Your task to perform on an android device: Add "razer blade" to the cart on bestbuy.com Image 0: 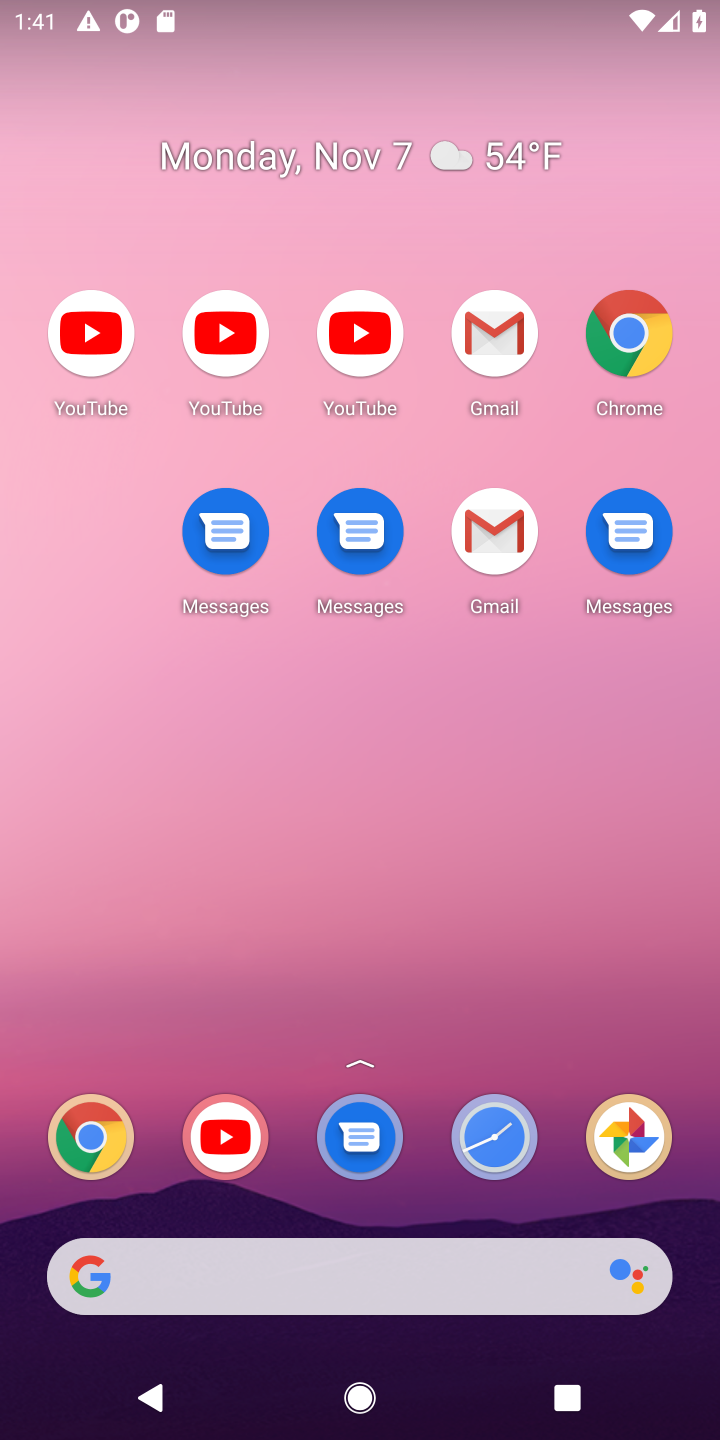
Step 0: drag from (419, 1213) to (379, 125)
Your task to perform on an android device: Add "razer blade" to the cart on bestbuy.com Image 1: 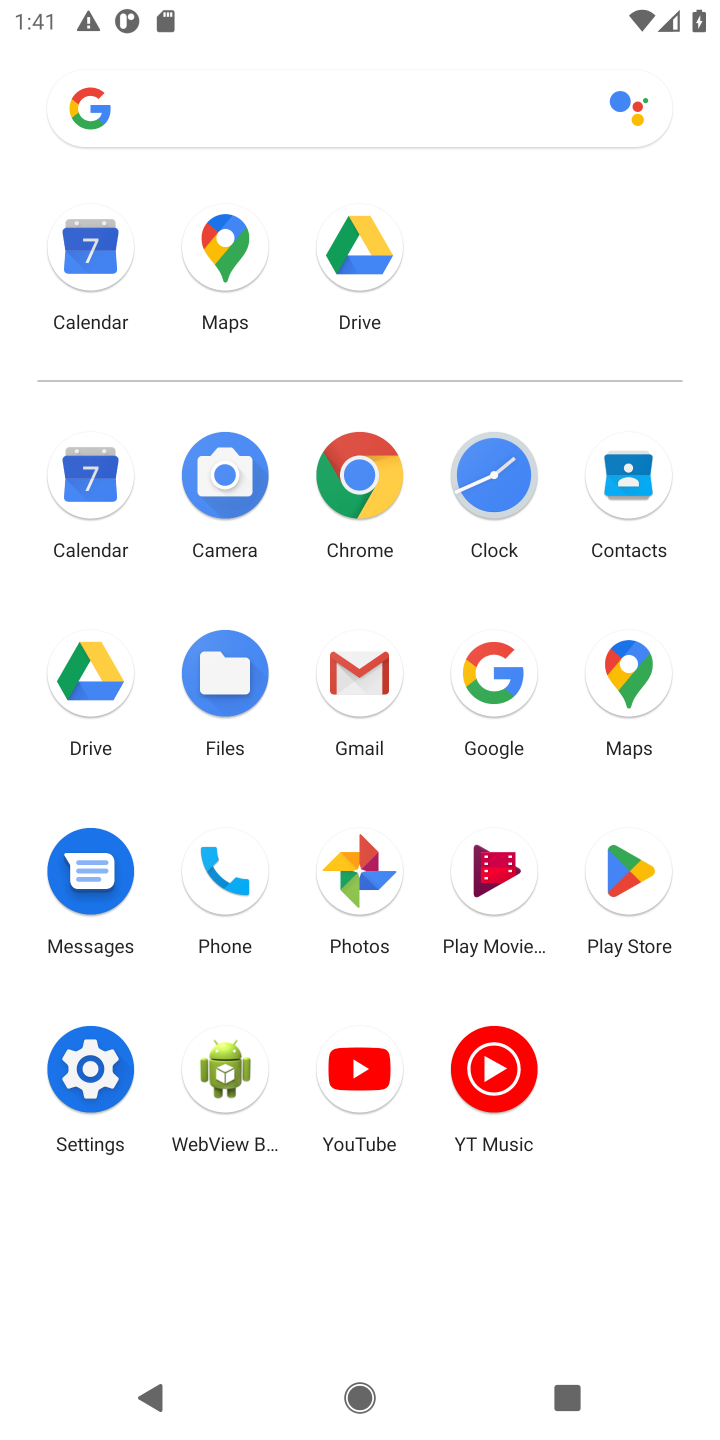
Step 1: click (365, 468)
Your task to perform on an android device: Add "razer blade" to the cart on bestbuy.com Image 2: 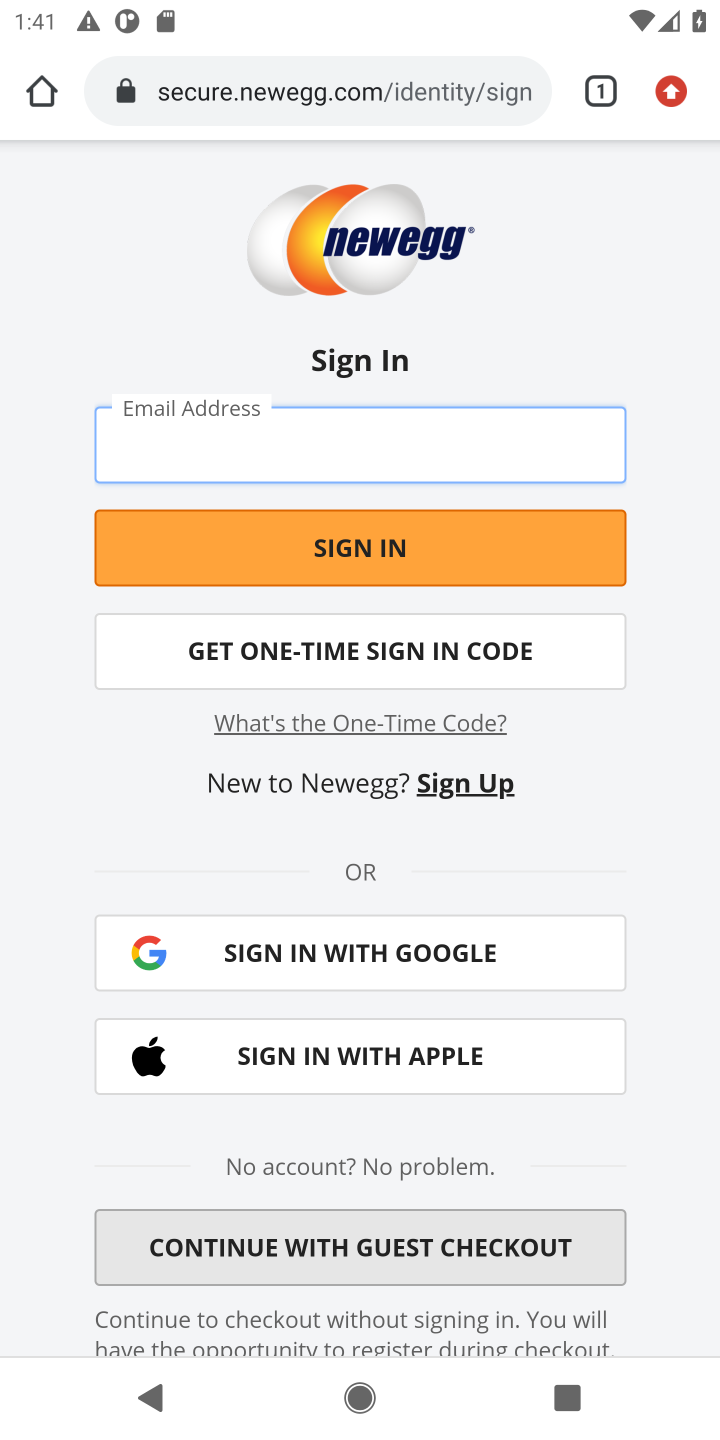
Step 2: click (387, 104)
Your task to perform on an android device: Add "razer blade" to the cart on bestbuy.com Image 3: 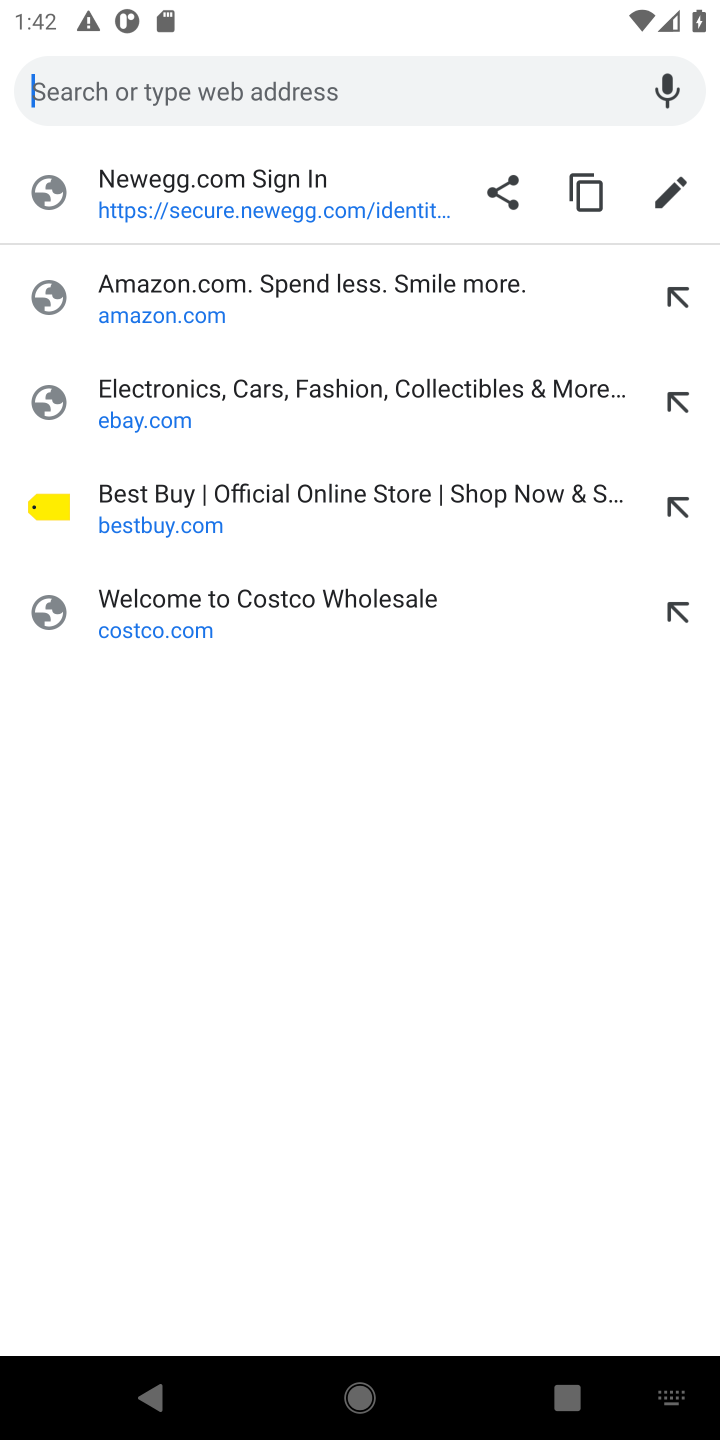
Step 3: type "bestbuy.com"
Your task to perform on an android device: Add "razer blade" to the cart on bestbuy.com Image 4: 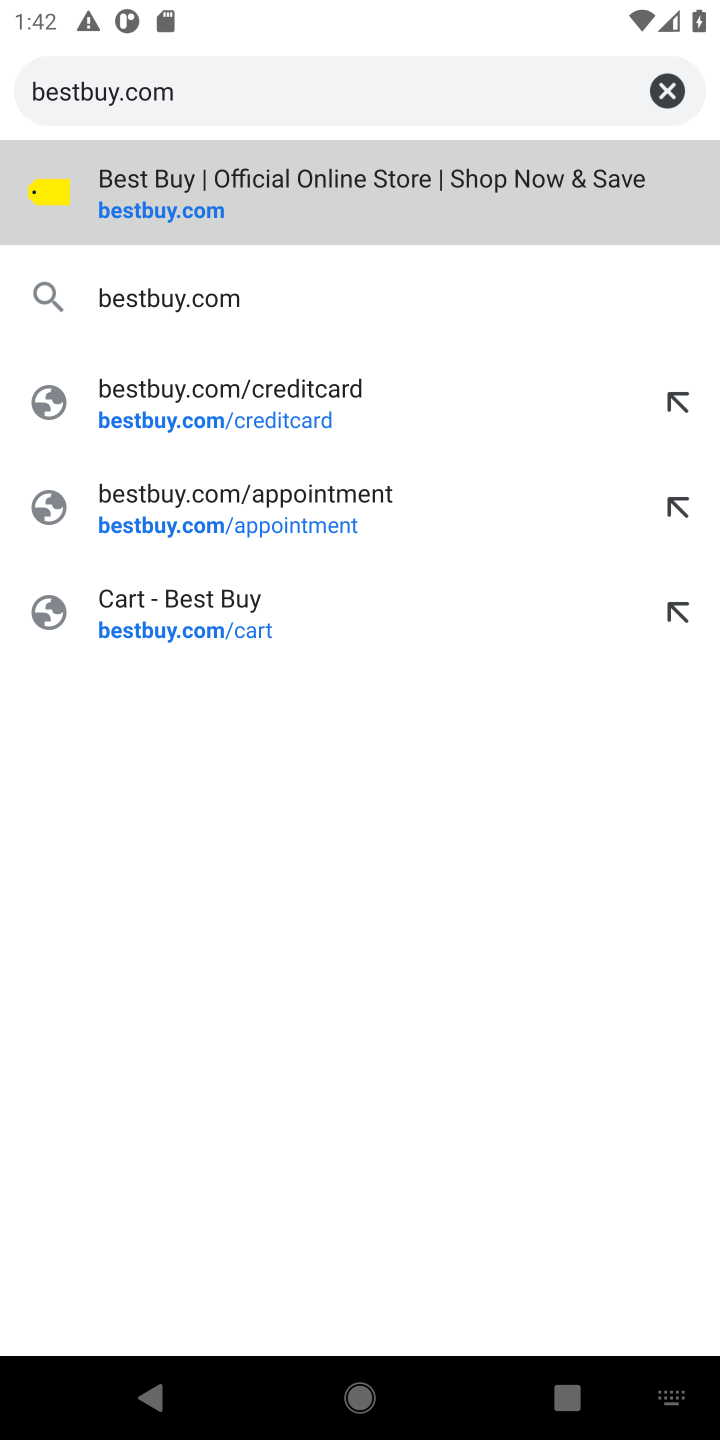
Step 4: press enter
Your task to perform on an android device: Add "razer blade" to the cart on bestbuy.com Image 5: 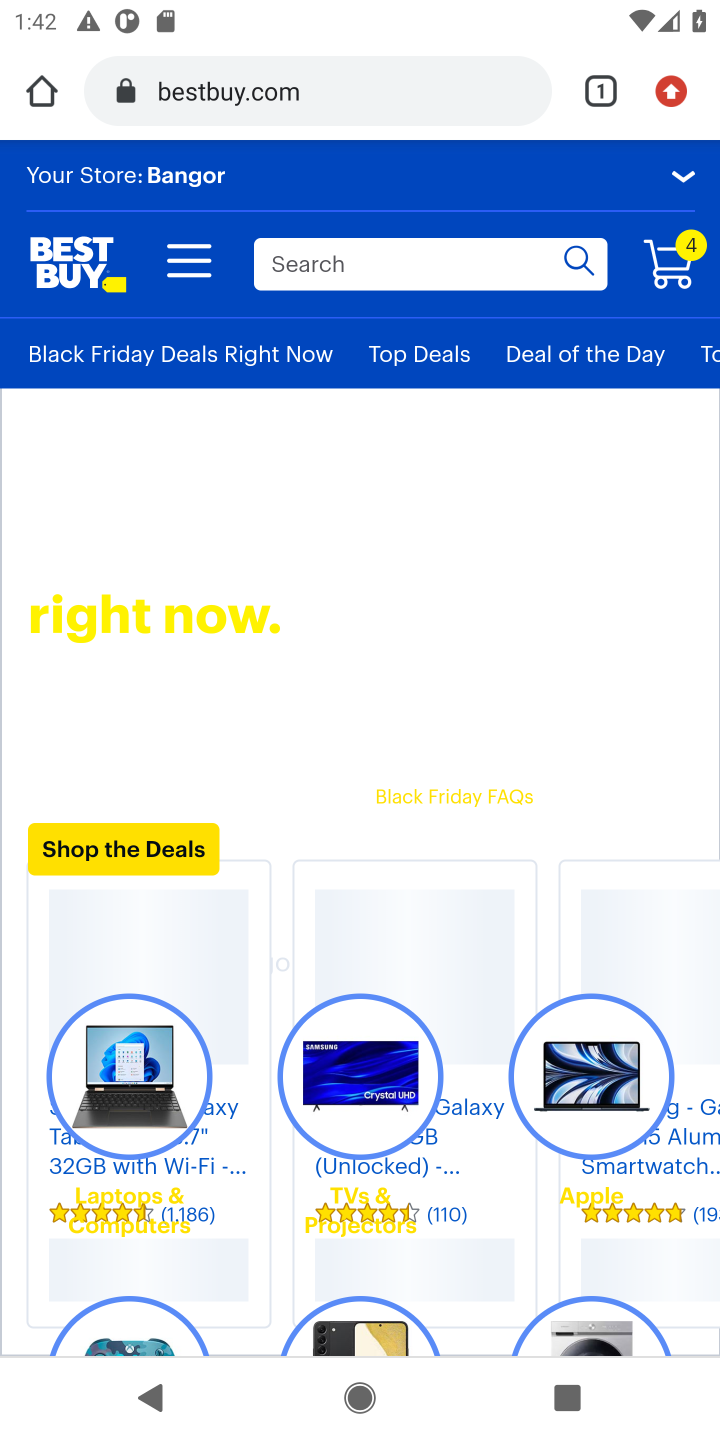
Step 5: click (504, 271)
Your task to perform on an android device: Add "razer blade" to the cart on bestbuy.com Image 6: 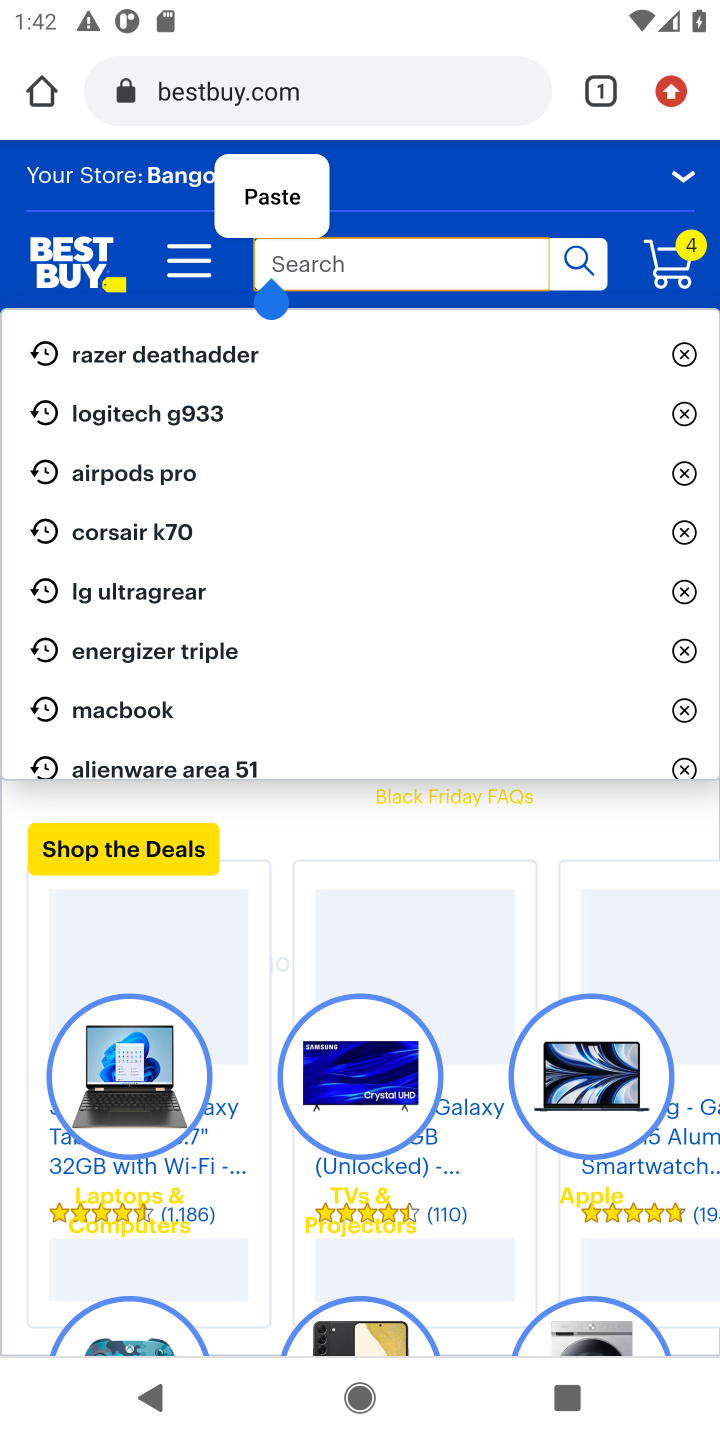
Step 6: type "razer blade"
Your task to perform on an android device: Add "razer blade" to the cart on bestbuy.com Image 7: 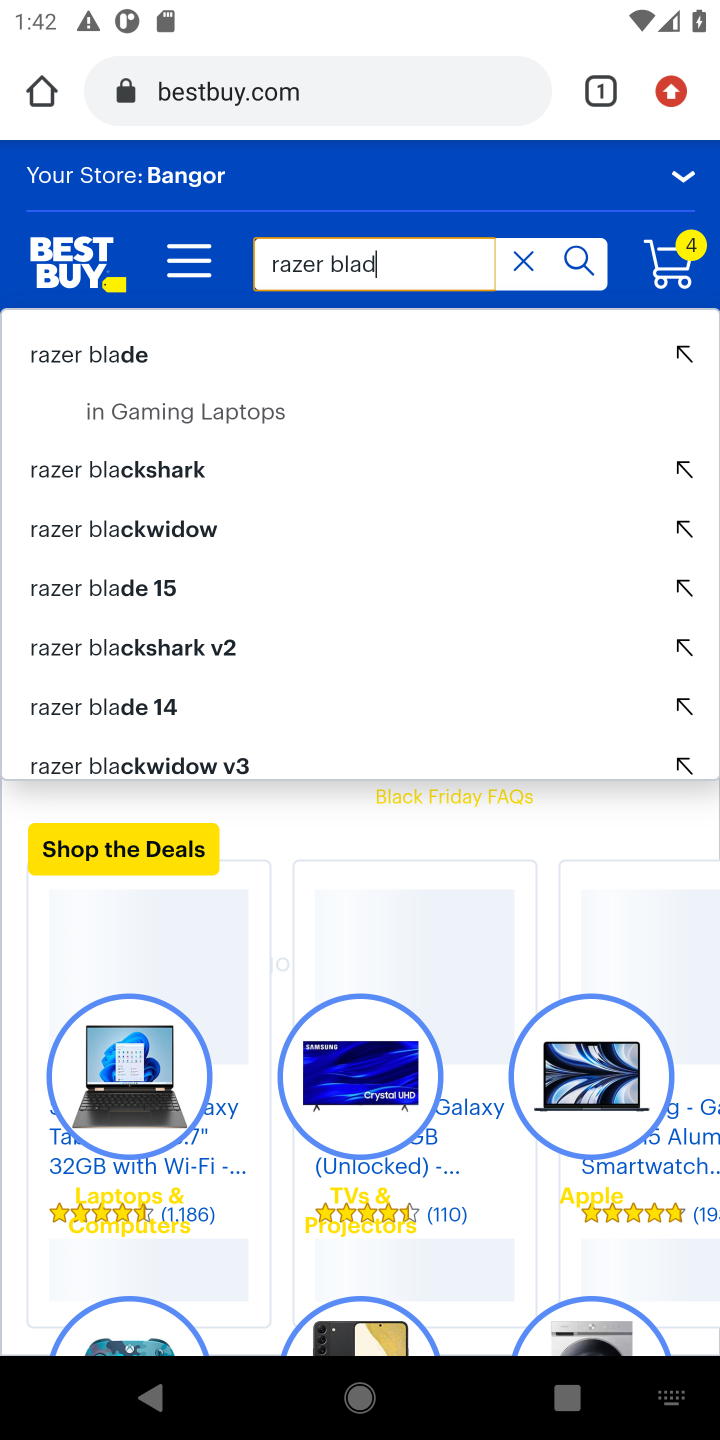
Step 7: press enter
Your task to perform on an android device: Add "razer blade" to the cart on bestbuy.com Image 8: 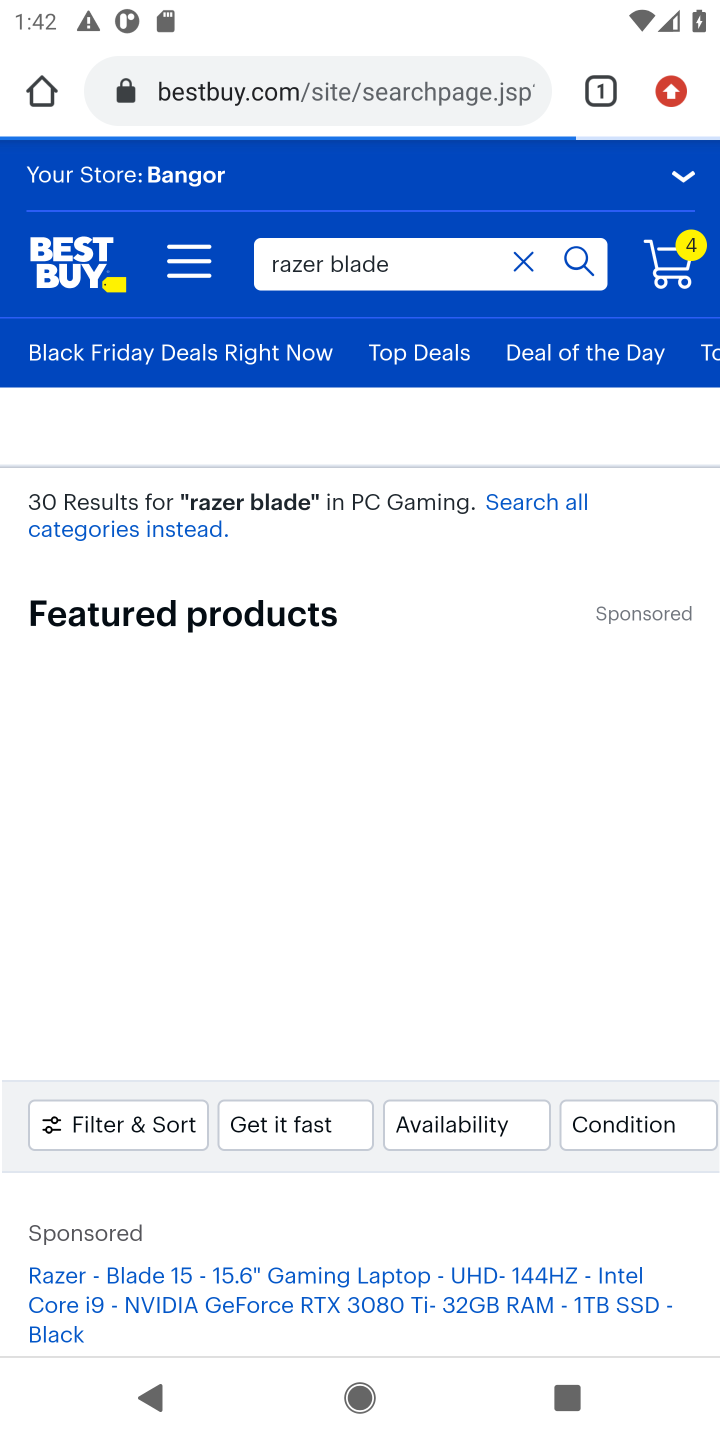
Step 8: drag from (324, 1236) to (327, 285)
Your task to perform on an android device: Add "razer blade" to the cart on bestbuy.com Image 9: 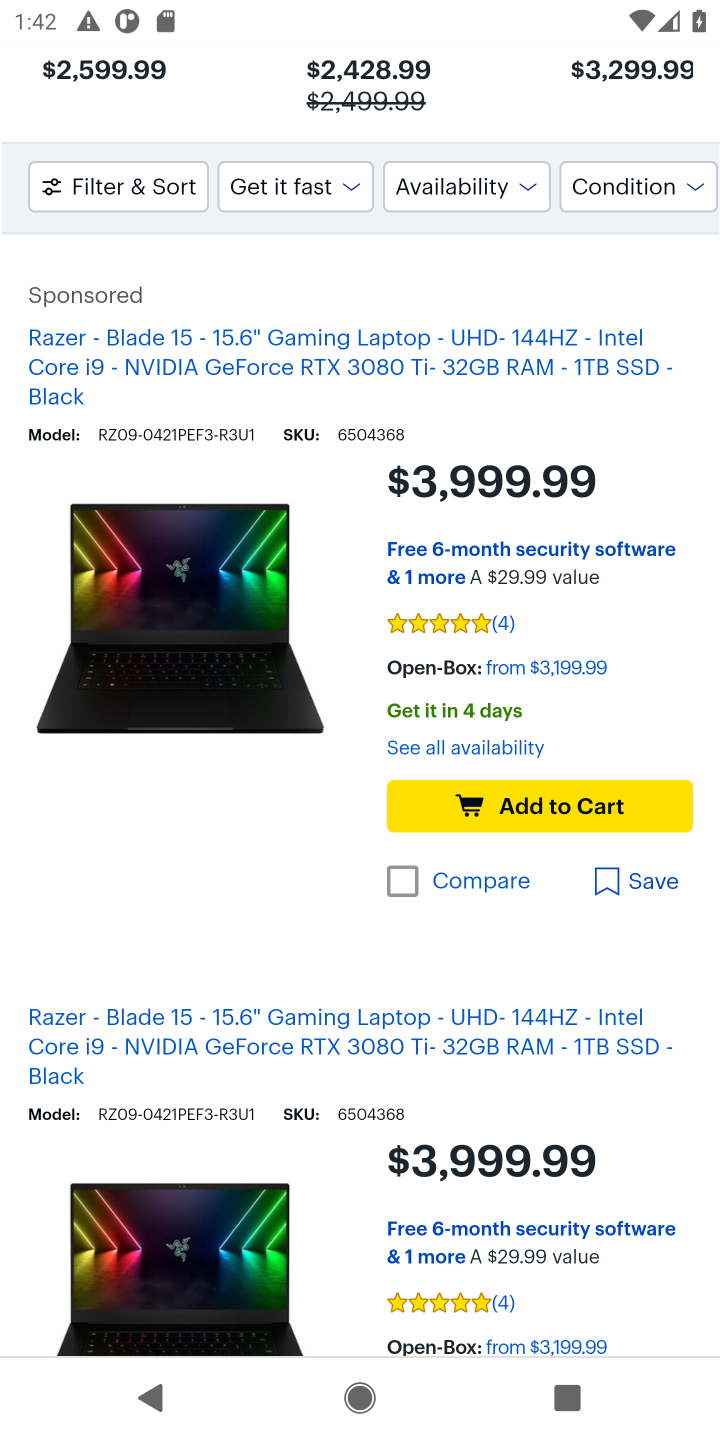
Step 9: drag from (301, 1120) to (351, 569)
Your task to perform on an android device: Add "razer blade" to the cart on bestbuy.com Image 10: 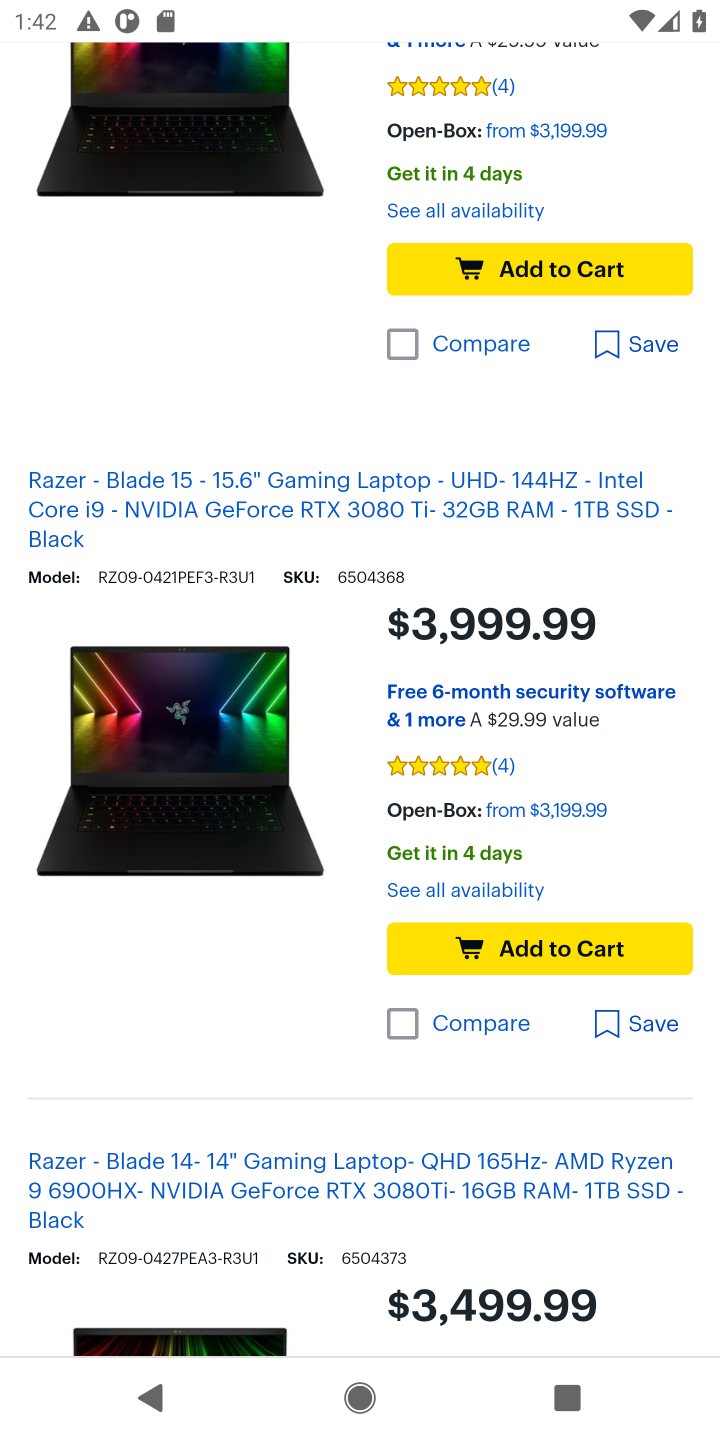
Step 10: click (548, 950)
Your task to perform on an android device: Add "razer blade" to the cart on bestbuy.com Image 11: 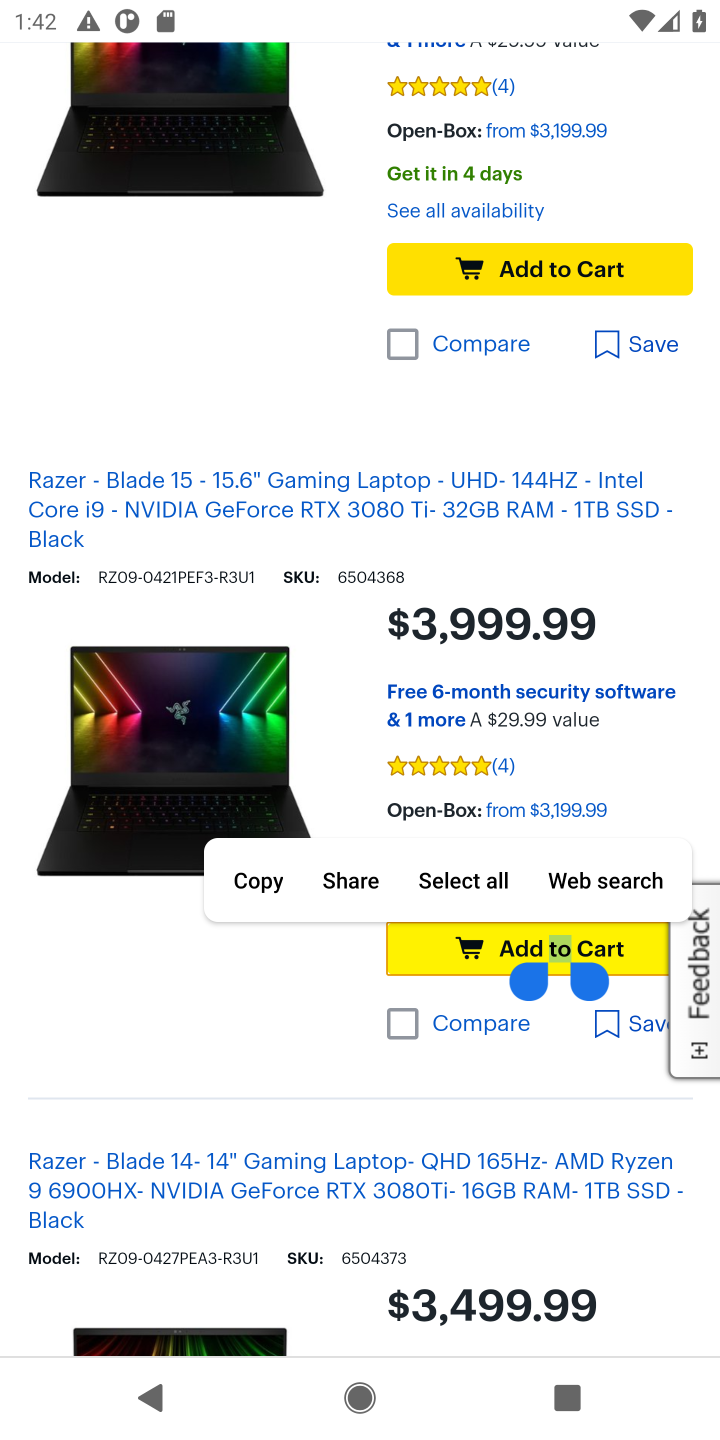
Step 11: click (597, 938)
Your task to perform on an android device: Add "razer blade" to the cart on bestbuy.com Image 12: 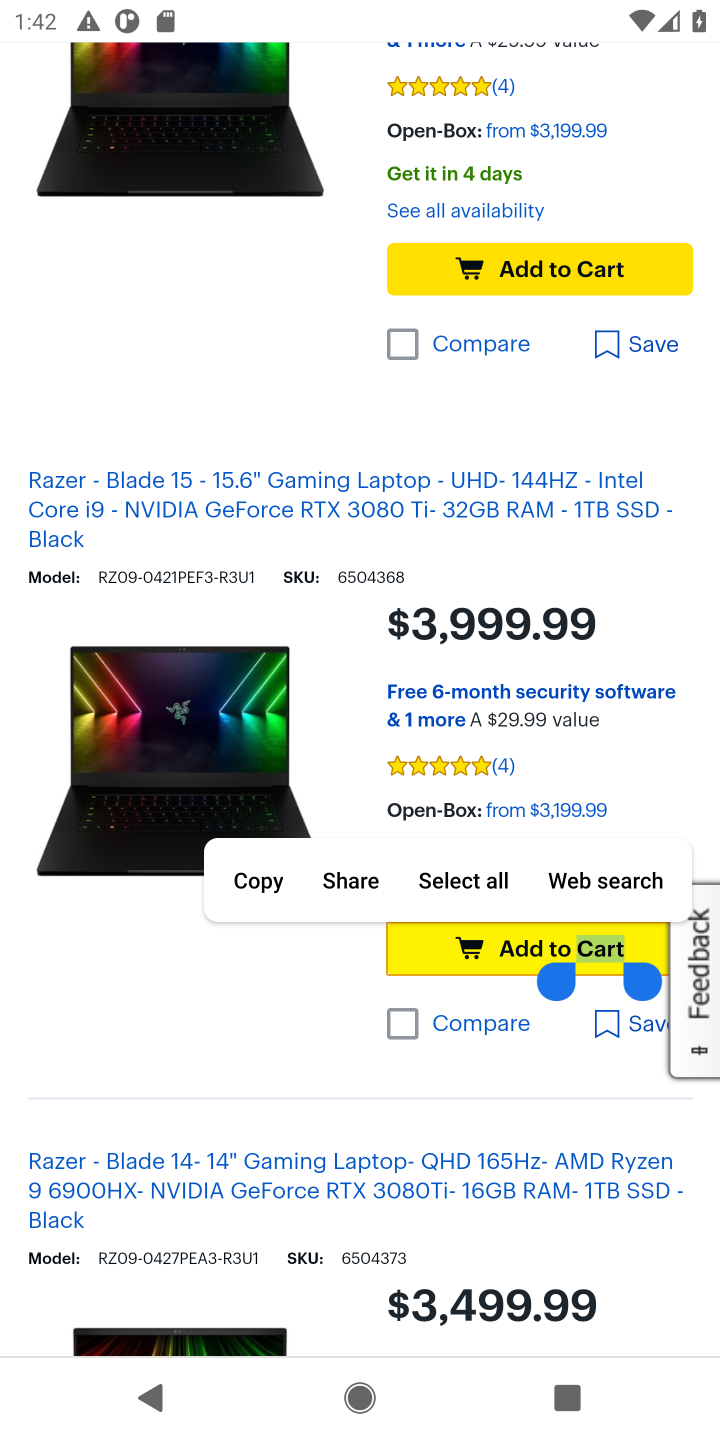
Step 12: click (478, 952)
Your task to perform on an android device: Add "razer blade" to the cart on bestbuy.com Image 13: 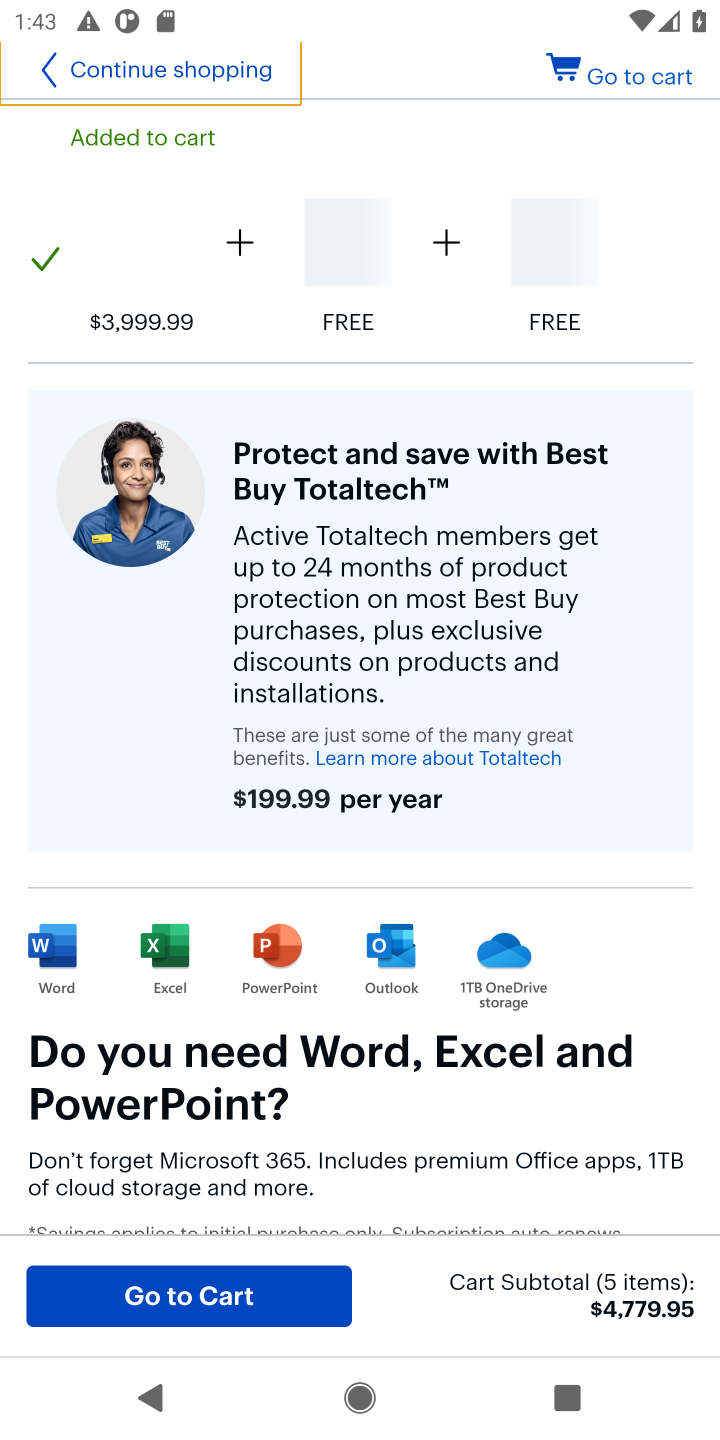
Step 13: task complete